Your task to perform on an android device: When is my next appointment? Image 0: 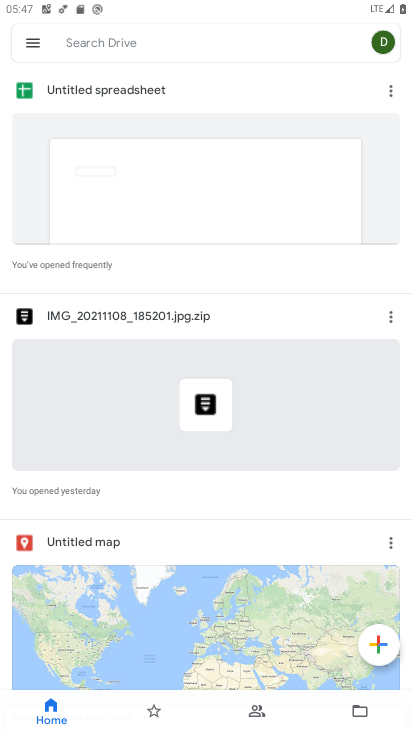
Step 0: press home button
Your task to perform on an android device: When is my next appointment? Image 1: 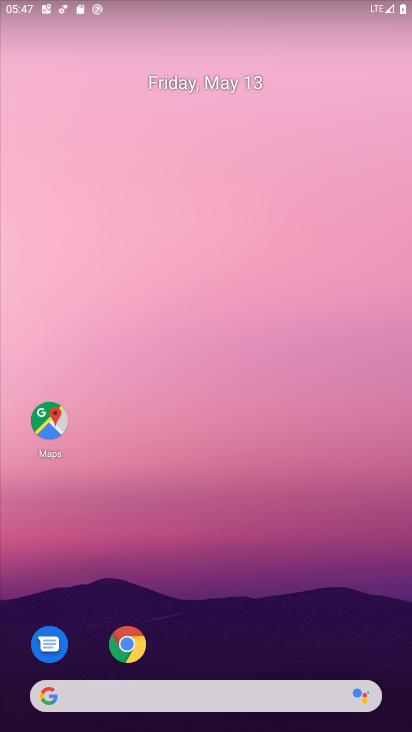
Step 1: drag from (218, 247) to (269, 5)
Your task to perform on an android device: When is my next appointment? Image 2: 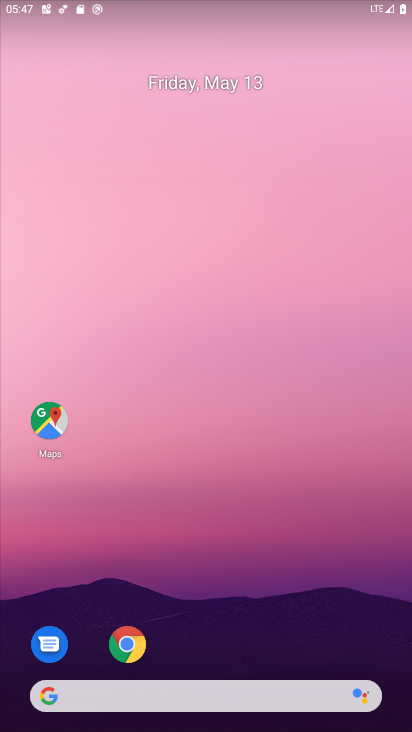
Step 2: drag from (170, 645) to (232, 5)
Your task to perform on an android device: When is my next appointment? Image 3: 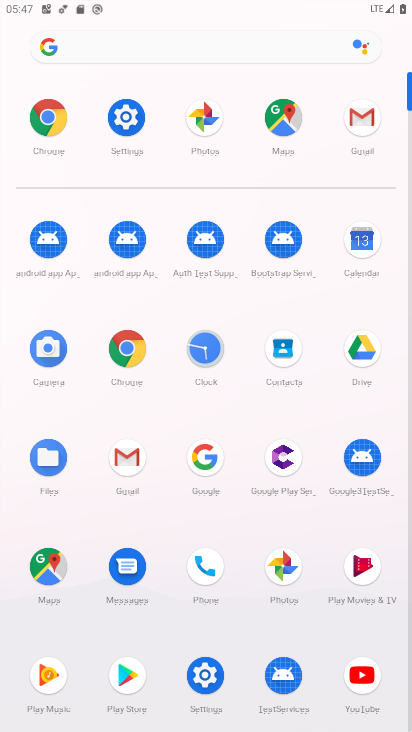
Step 3: click (370, 243)
Your task to perform on an android device: When is my next appointment? Image 4: 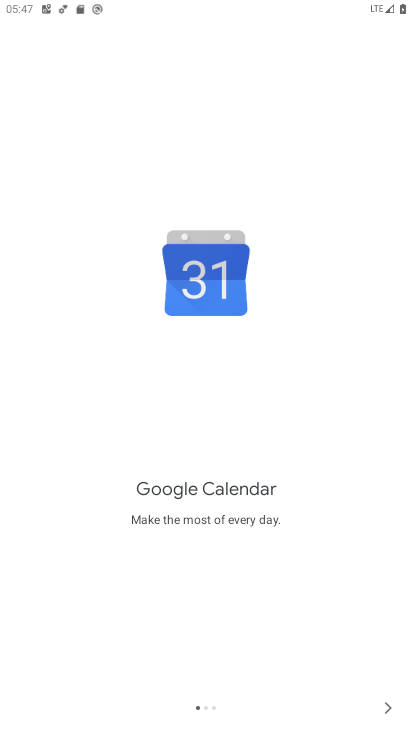
Step 4: click (389, 704)
Your task to perform on an android device: When is my next appointment? Image 5: 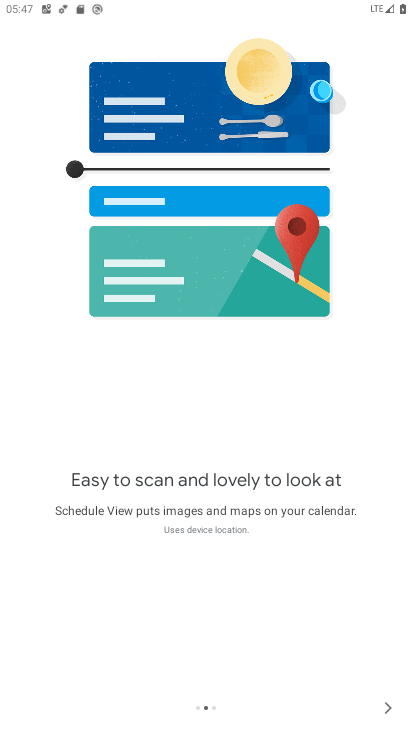
Step 5: click (386, 701)
Your task to perform on an android device: When is my next appointment? Image 6: 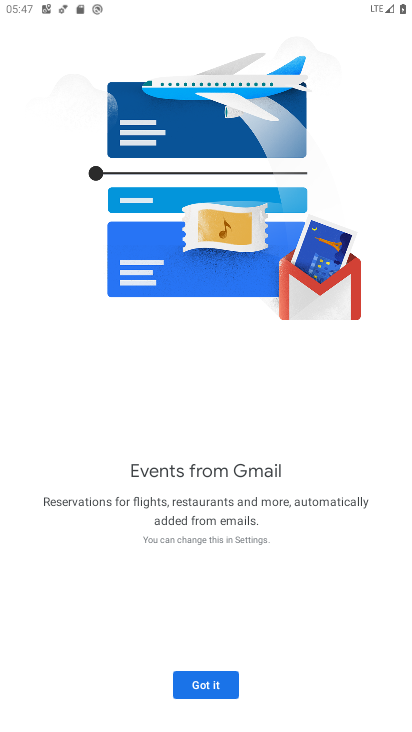
Step 6: click (197, 694)
Your task to perform on an android device: When is my next appointment? Image 7: 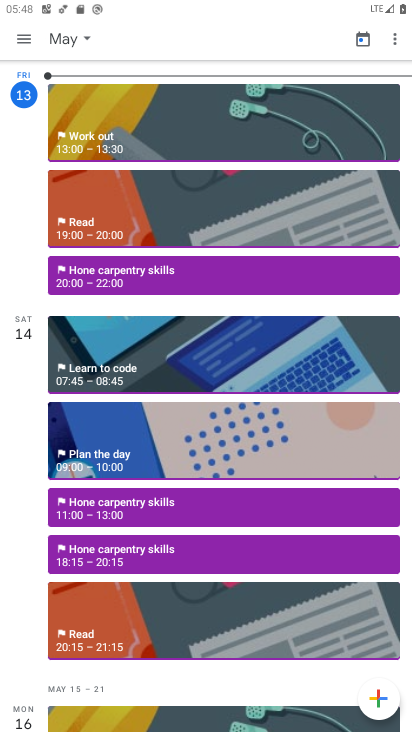
Step 7: task complete